Your task to perform on an android device: Turn off the flashlight Image 0: 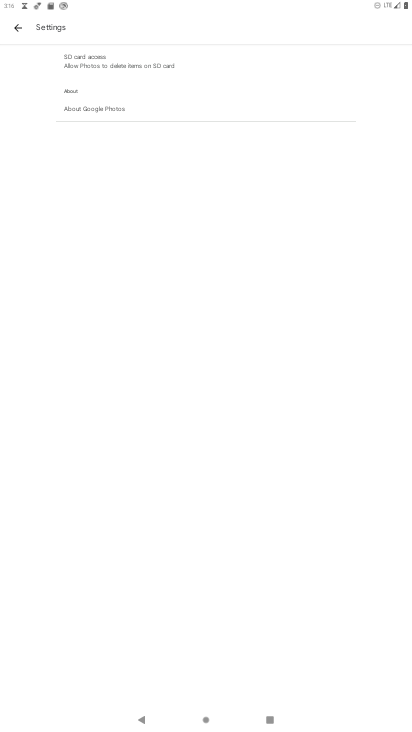
Step 0: press home button
Your task to perform on an android device: Turn off the flashlight Image 1: 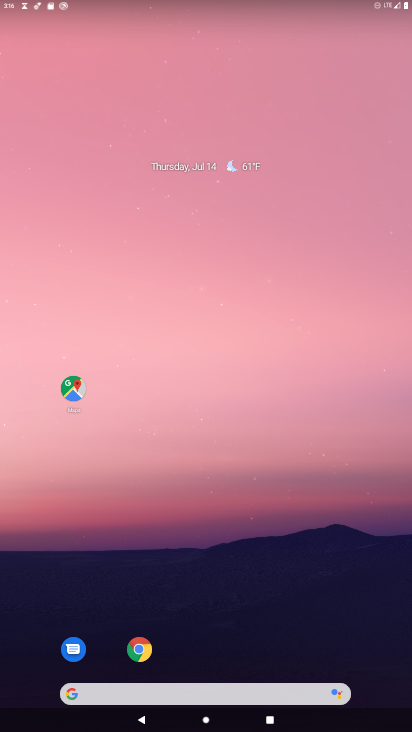
Step 1: task complete